Your task to perform on an android device: turn off smart reply in the gmail app Image 0: 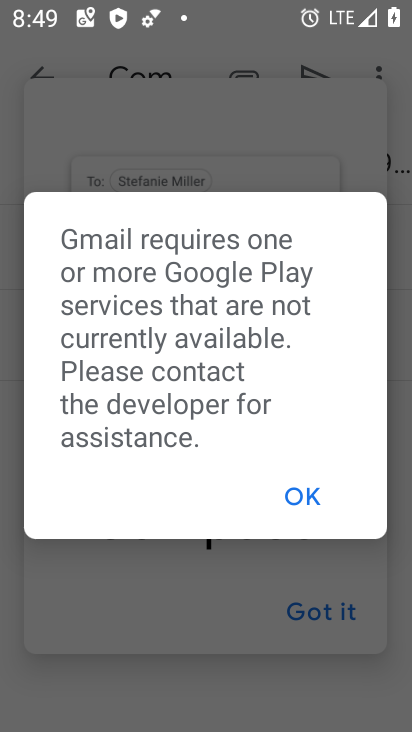
Step 0: press home button
Your task to perform on an android device: turn off smart reply in the gmail app Image 1: 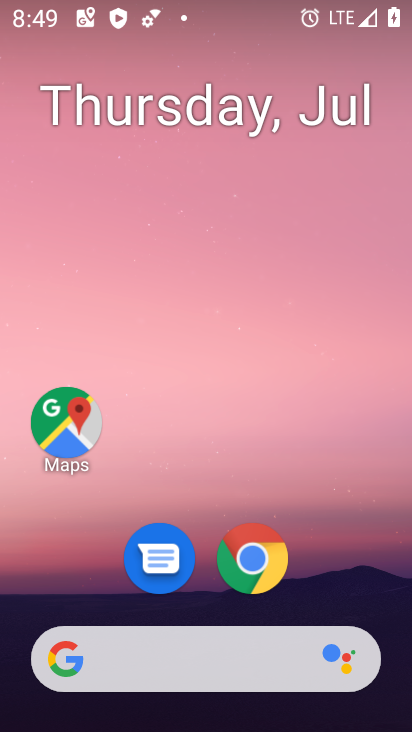
Step 1: drag from (184, 670) to (227, 192)
Your task to perform on an android device: turn off smart reply in the gmail app Image 2: 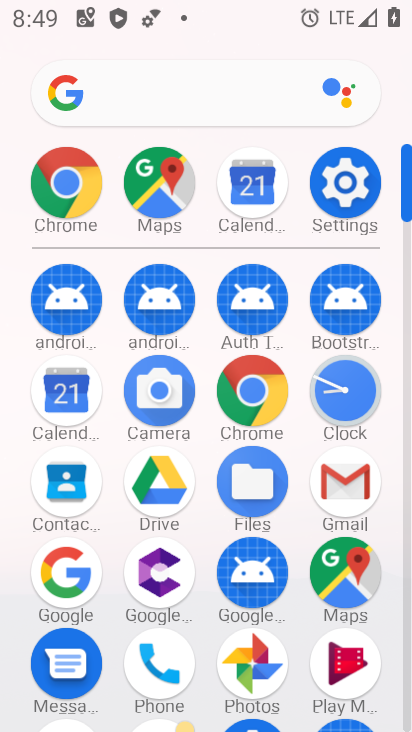
Step 2: drag from (195, 3) to (155, 228)
Your task to perform on an android device: turn off smart reply in the gmail app Image 3: 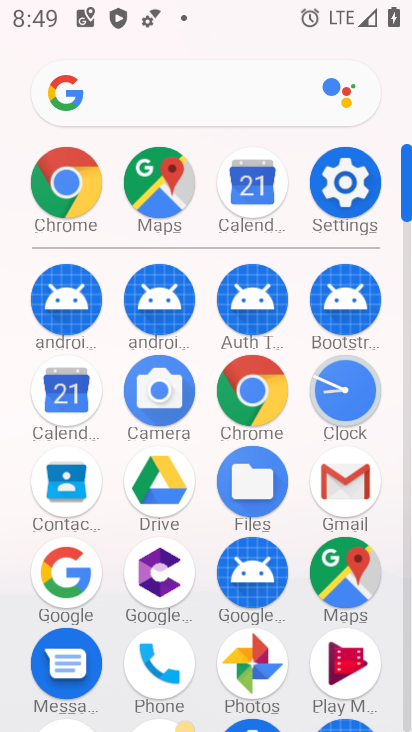
Step 3: drag from (184, 25) to (153, 402)
Your task to perform on an android device: turn off smart reply in the gmail app Image 4: 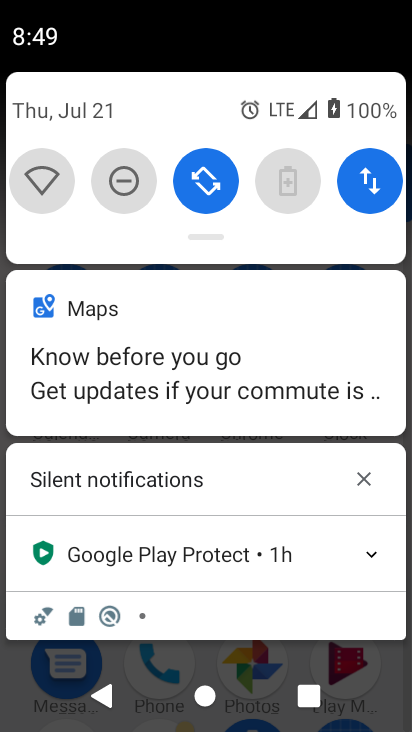
Step 4: drag from (197, 227) to (145, 461)
Your task to perform on an android device: turn off smart reply in the gmail app Image 5: 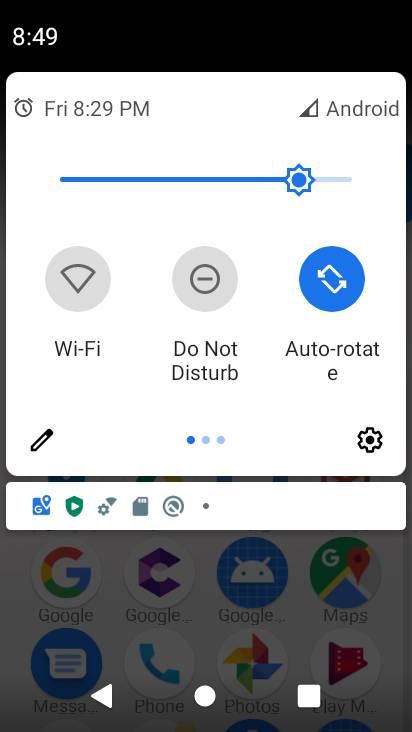
Step 5: drag from (120, 561) to (194, 175)
Your task to perform on an android device: turn off smart reply in the gmail app Image 6: 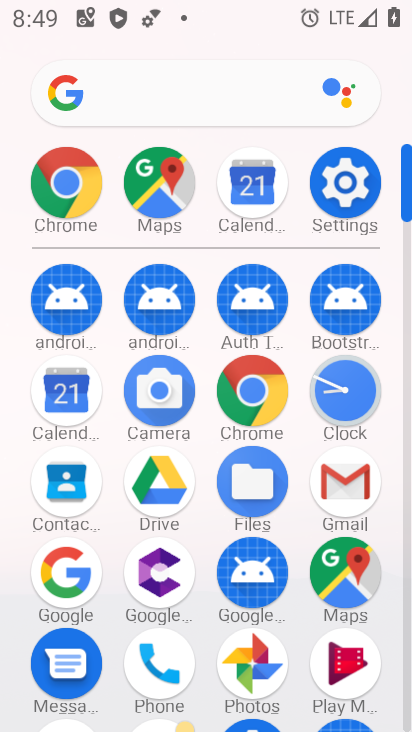
Step 6: click (339, 482)
Your task to perform on an android device: turn off smart reply in the gmail app Image 7: 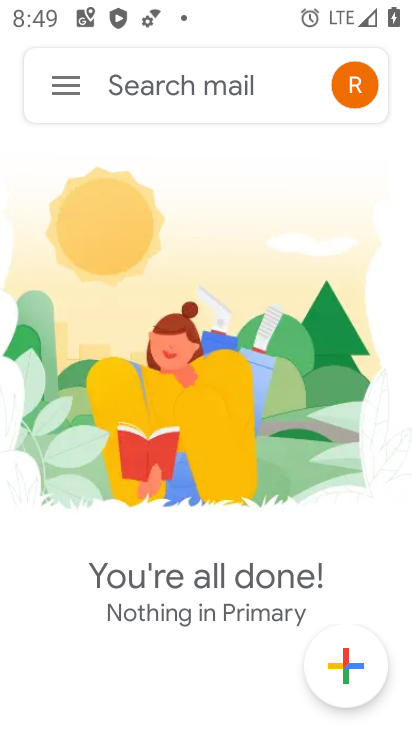
Step 7: click (61, 80)
Your task to perform on an android device: turn off smart reply in the gmail app Image 8: 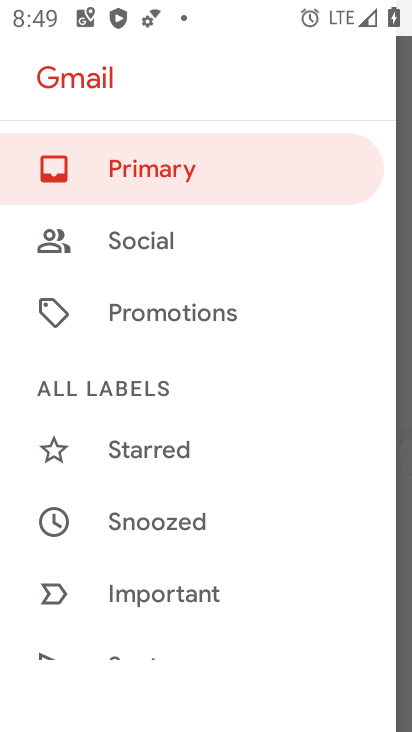
Step 8: drag from (102, 533) to (150, 201)
Your task to perform on an android device: turn off smart reply in the gmail app Image 9: 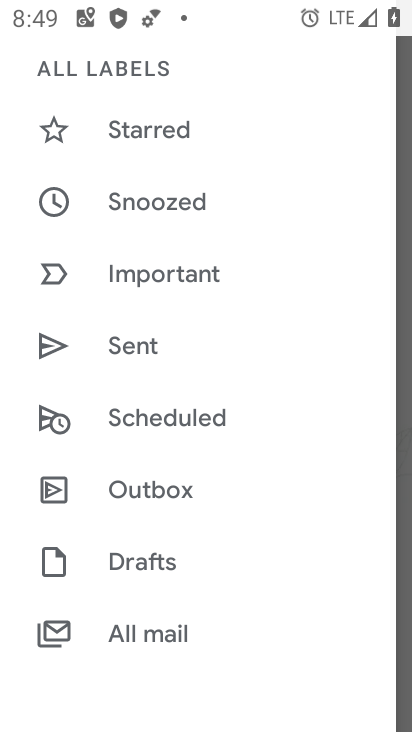
Step 9: drag from (95, 555) to (126, 236)
Your task to perform on an android device: turn off smart reply in the gmail app Image 10: 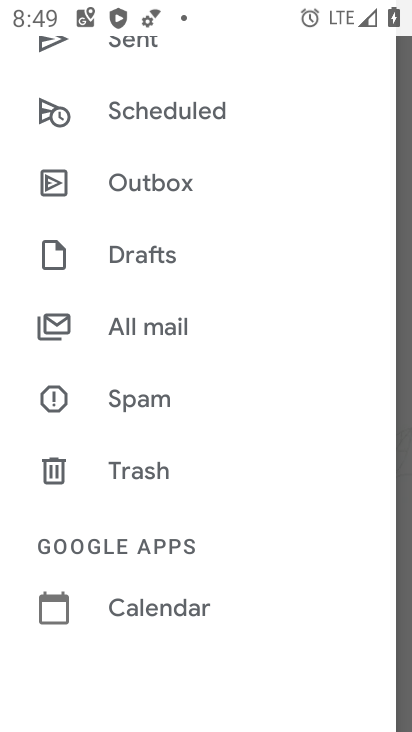
Step 10: drag from (123, 533) to (147, 256)
Your task to perform on an android device: turn off smart reply in the gmail app Image 11: 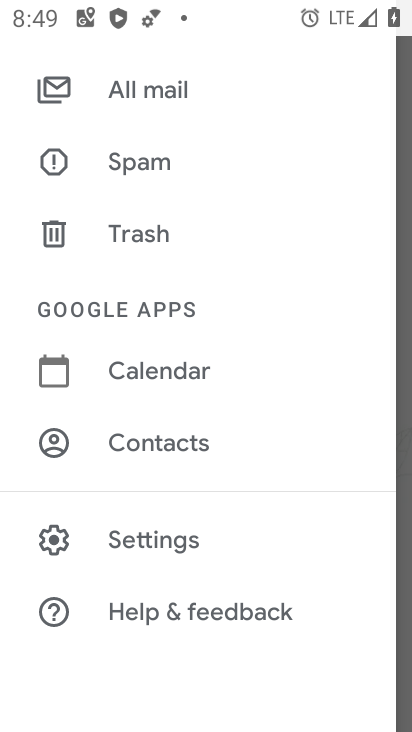
Step 11: click (108, 556)
Your task to perform on an android device: turn off smart reply in the gmail app Image 12: 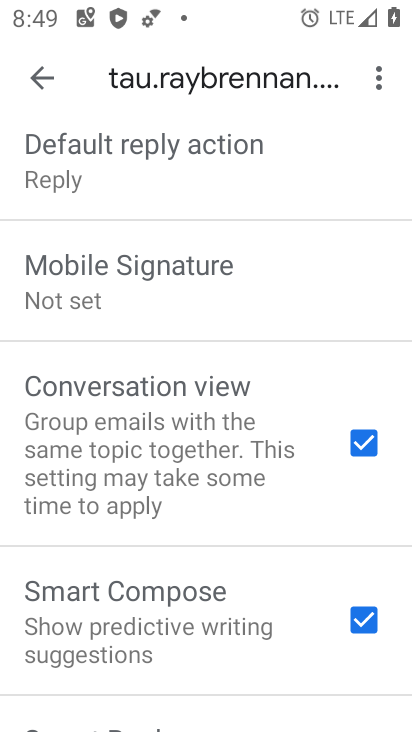
Step 12: drag from (160, 499) to (170, 346)
Your task to perform on an android device: turn off smart reply in the gmail app Image 13: 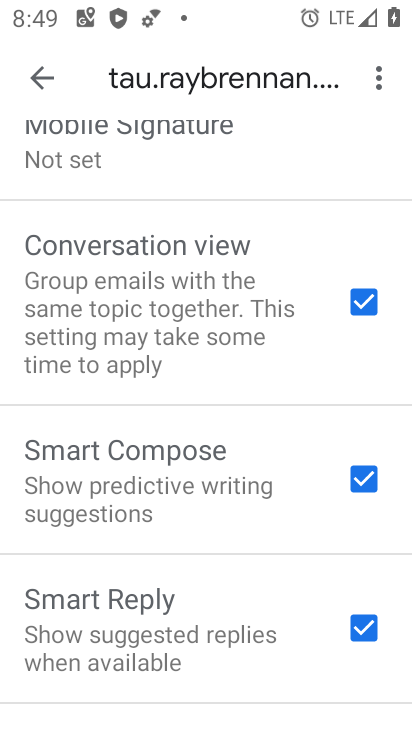
Step 13: click (364, 627)
Your task to perform on an android device: turn off smart reply in the gmail app Image 14: 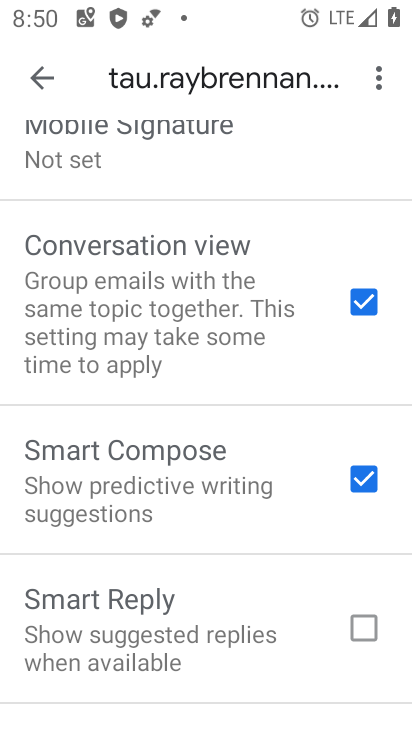
Step 14: task complete